Your task to perform on an android device: Go to battery settings Image 0: 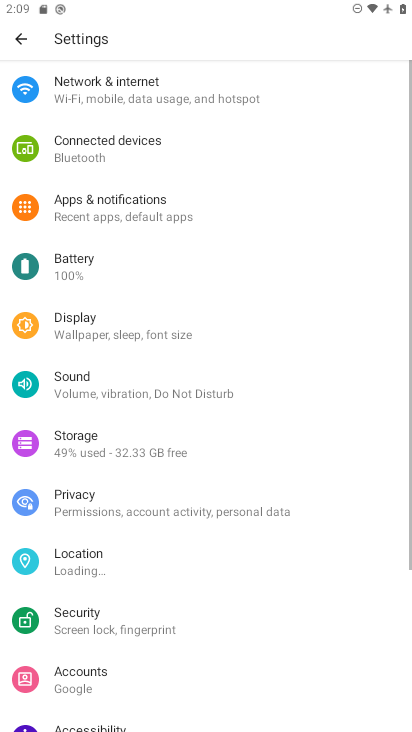
Step 0: press home button
Your task to perform on an android device: Go to battery settings Image 1: 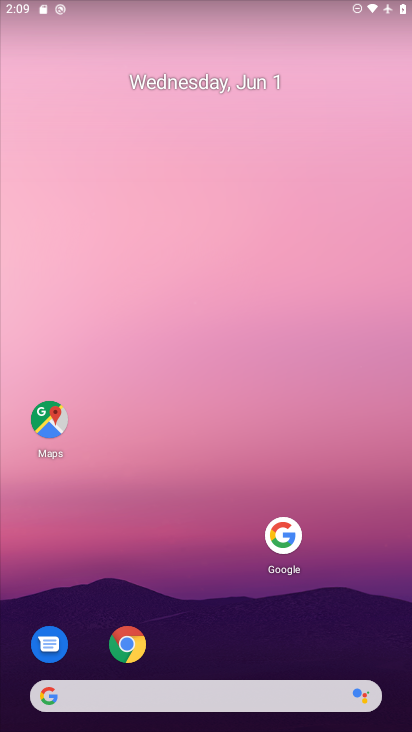
Step 1: drag from (197, 694) to (294, 122)
Your task to perform on an android device: Go to battery settings Image 2: 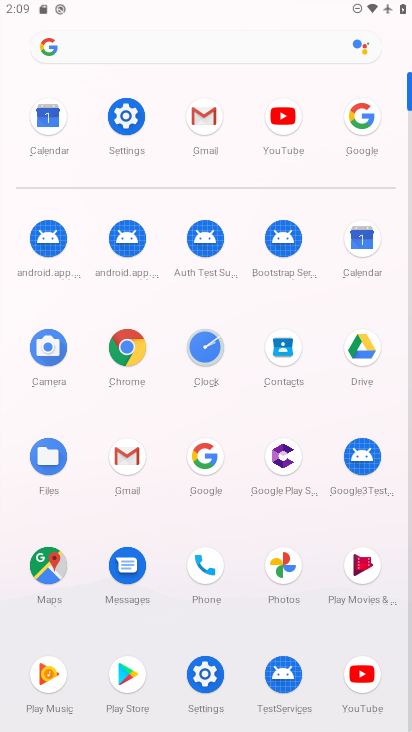
Step 2: click (124, 118)
Your task to perform on an android device: Go to battery settings Image 3: 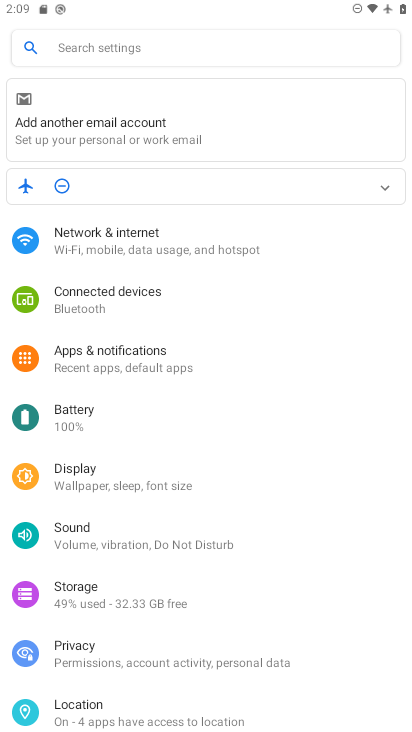
Step 3: click (76, 411)
Your task to perform on an android device: Go to battery settings Image 4: 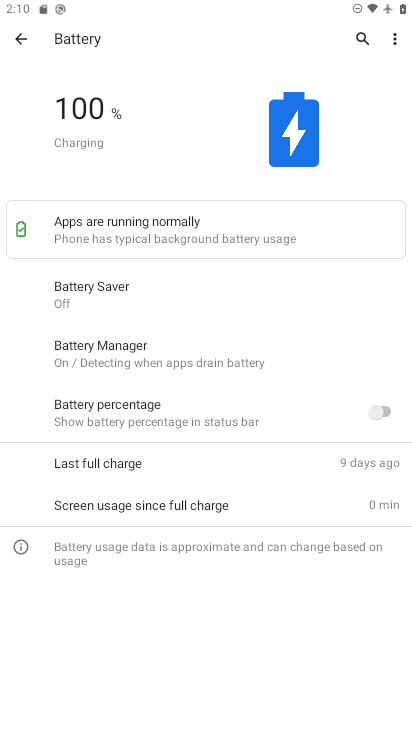
Step 4: task complete